Your task to perform on an android device: Go to CNN.com Image 0: 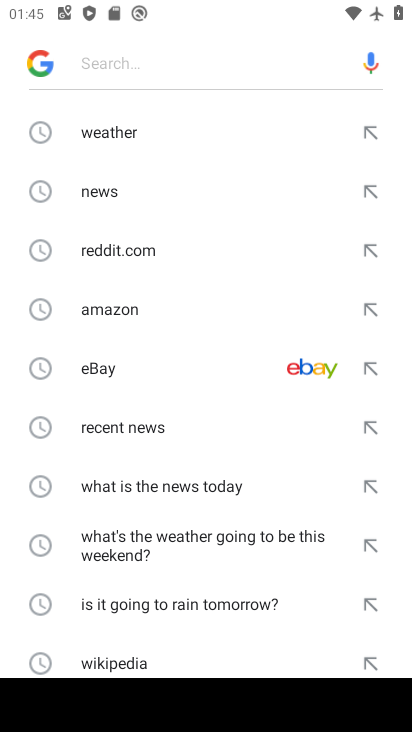
Step 0: press back button
Your task to perform on an android device: Go to CNN.com Image 1: 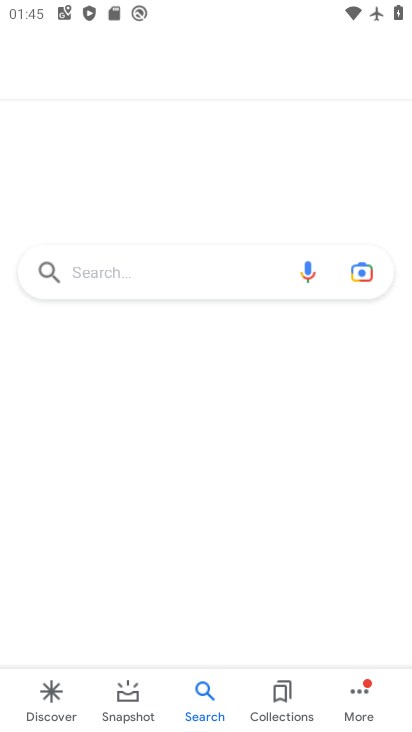
Step 1: click (183, 252)
Your task to perform on an android device: Go to CNN.com Image 2: 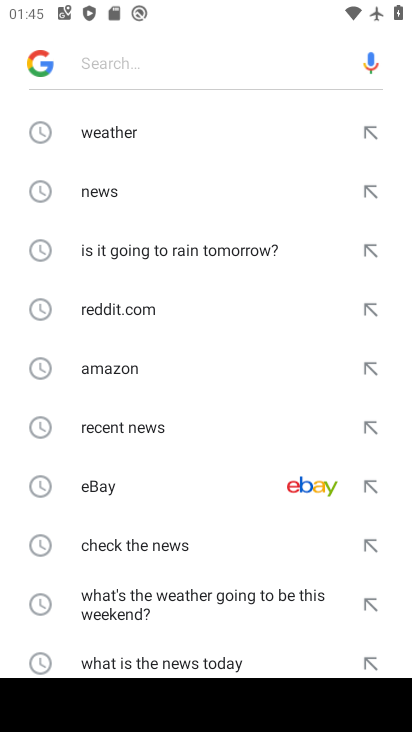
Step 2: type "cnn"
Your task to perform on an android device: Go to CNN.com Image 3: 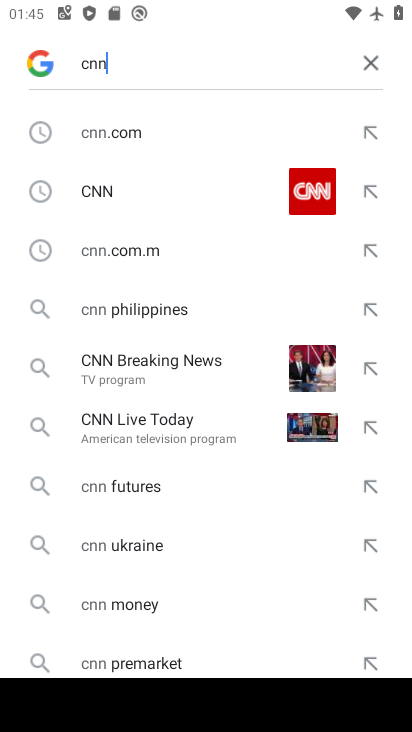
Step 3: click (265, 181)
Your task to perform on an android device: Go to CNN.com Image 4: 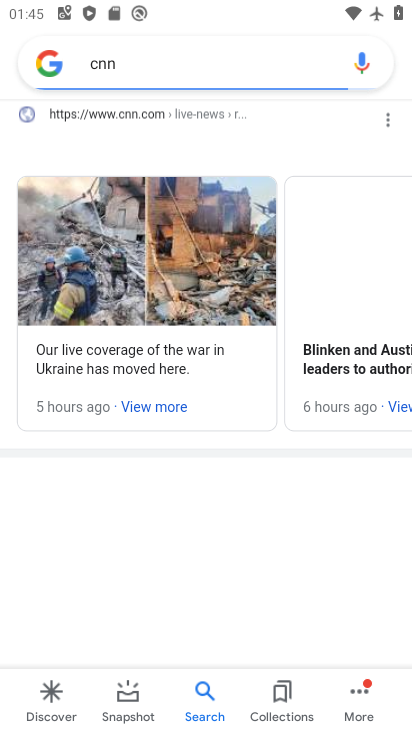
Step 4: task complete